Your task to perform on an android device: turn vacation reply on in the gmail app Image 0: 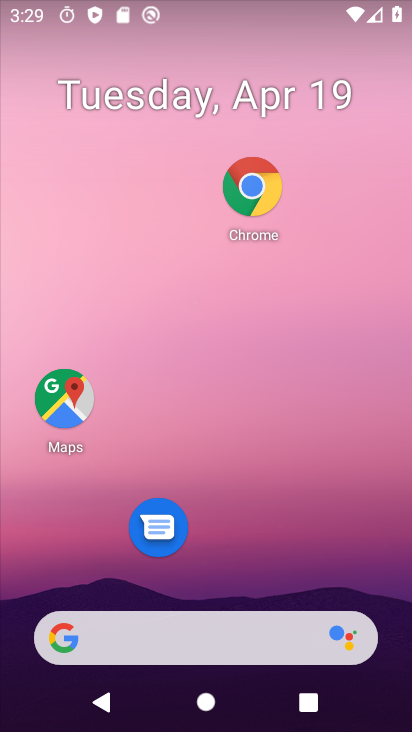
Step 0: drag from (180, 673) to (236, 198)
Your task to perform on an android device: turn vacation reply on in the gmail app Image 1: 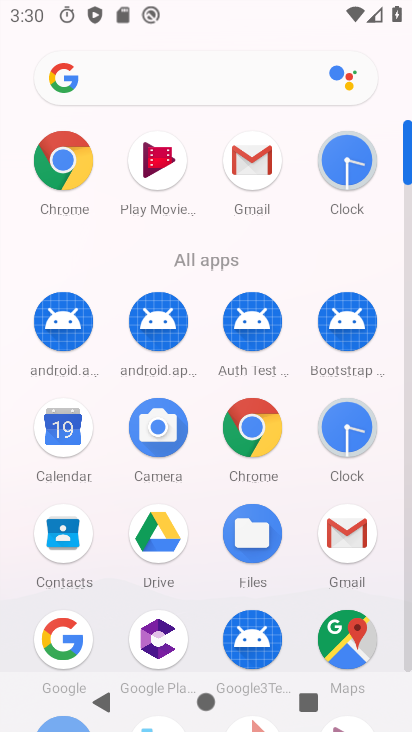
Step 1: click (253, 163)
Your task to perform on an android device: turn vacation reply on in the gmail app Image 2: 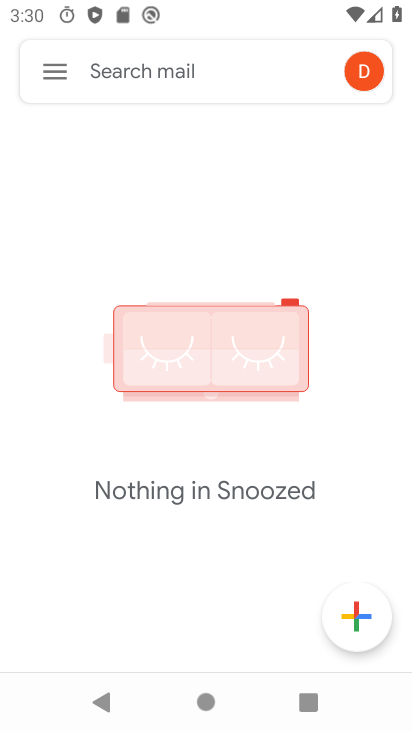
Step 2: click (61, 69)
Your task to perform on an android device: turn vacation reply on in the gmail app Image 3: 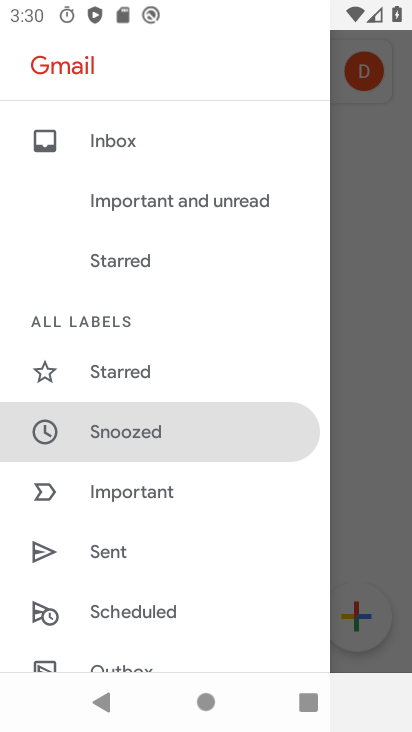
Step 3: drag from (150, 619) to (192, 179)
Your task to perform on an android device: turn vacation reply on in the gmail app Image 4: 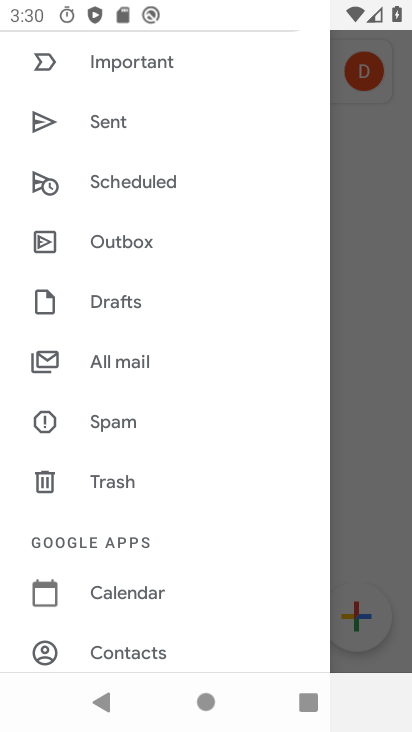
Step 4: drag from (182, 511) to (240, 83)
Your task to perform on an android device: turn vacation reply on in the gmail app Image 5: 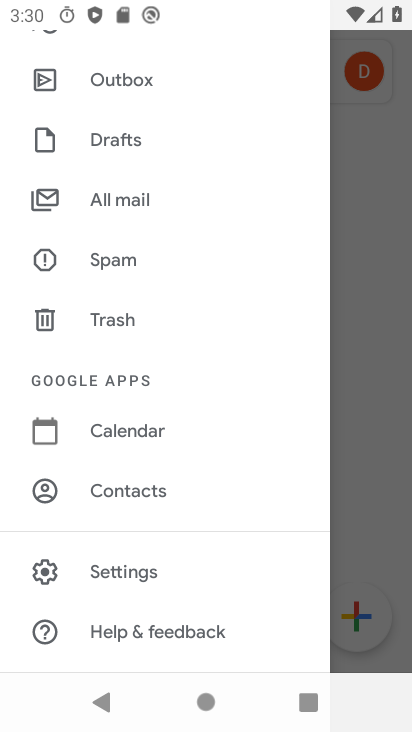
Step 5: click (130, 568)
Your task to perform on an android device: turn vacation reply on in the gmail app Image 6: 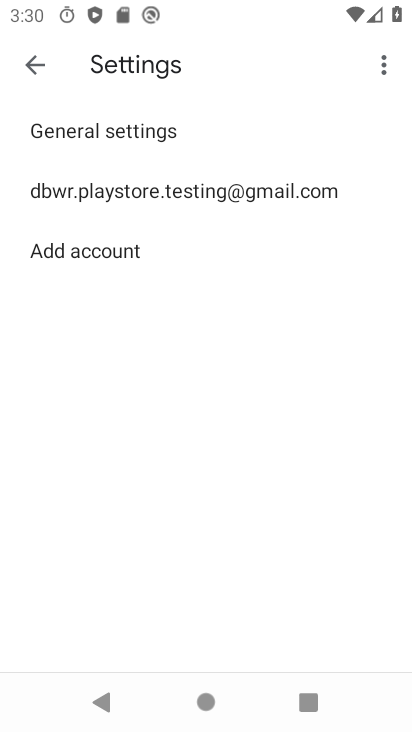
Step 6: click (174, 186)
Your task to perform on an android device: turn vacation reply on in the gmail app Image 7: 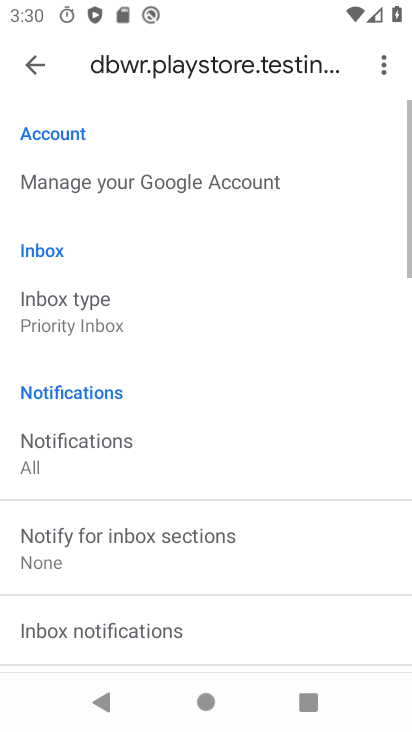
Step 7: drag from (116, 534) to (171, 106)
Your task to perform on an android device: turn vacation reply on in the gmail app Image 8: 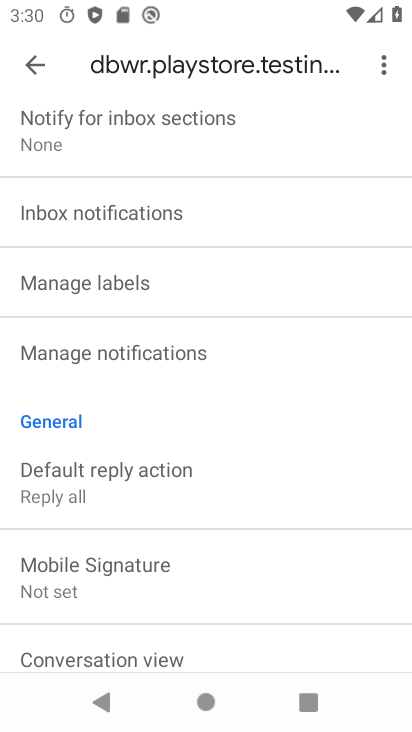
Step 8: drag from (116, 520) to (223, 8)
Your task to perform on an android device: turn vacation reply on in the gmail app Image 9: 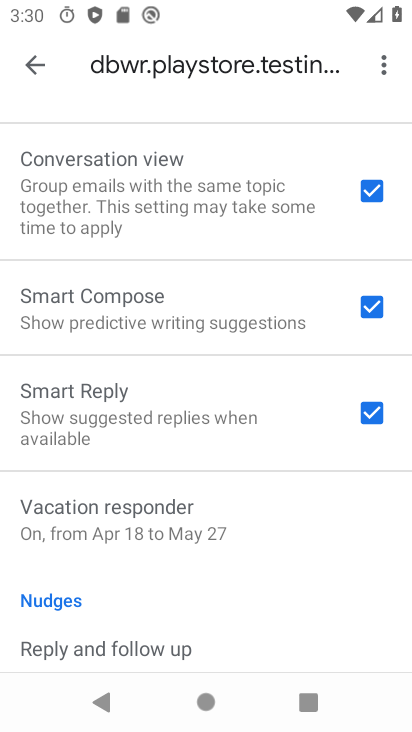
Step 9: click (136, 506)
Your task to perform on an android device: turn vacation reply on in the gmail app Image 10: 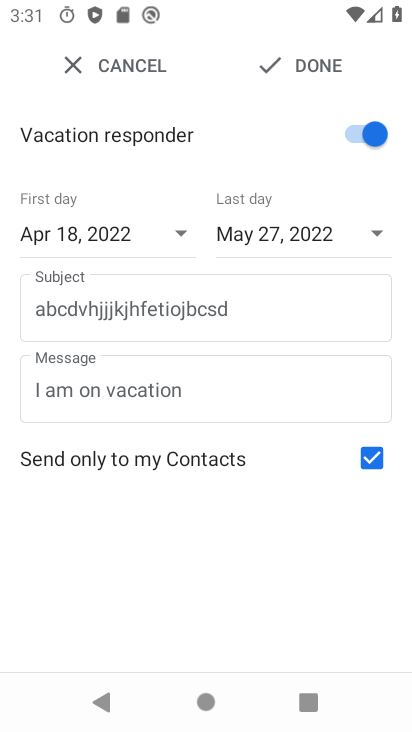
Step 10: click (261, 60)
Your task to perform on an android device: turn vacation reply on in the gmail app Image 11: 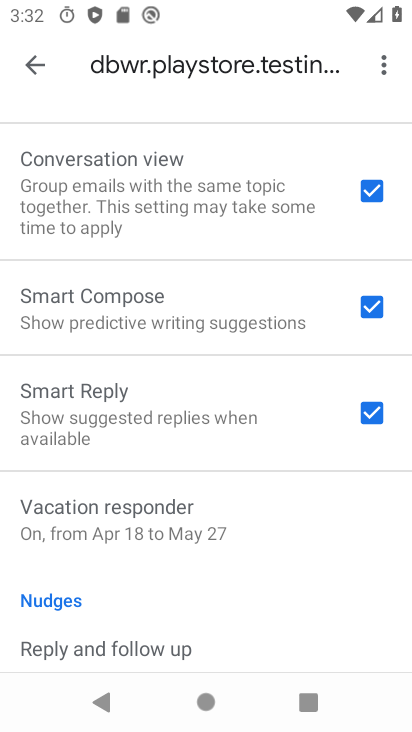
Step 11: task complete